Your task to perform on an android device: open sync settings in chrome Image 0: 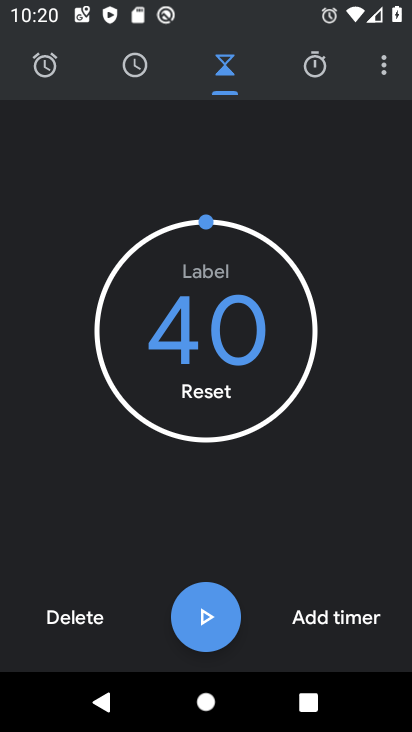
Step 0: press home button
Your task to perform on an android device: open sync settings in chrome Image 1: 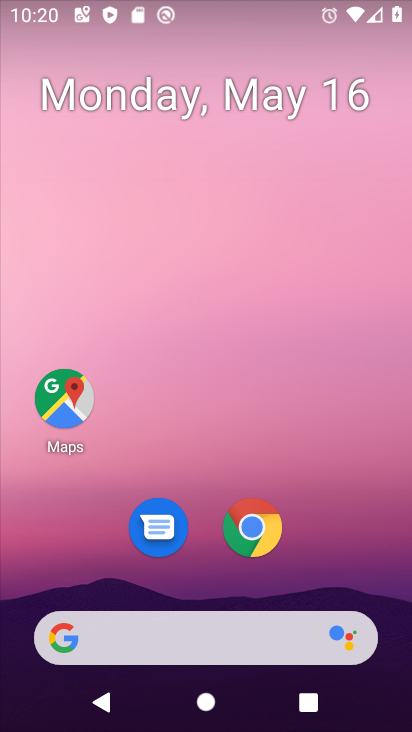
Step 1: click (239, 517)
Your task to perform on an android device: open sync settings in chrome Image 2: 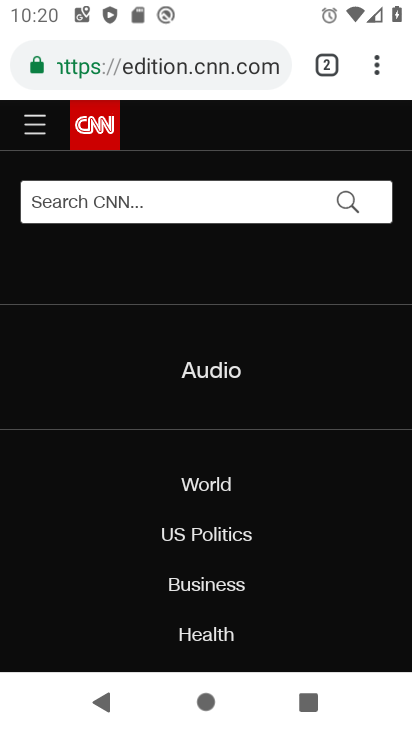
Step 2: click (374, 69)
Your task to perform on an android device: open sync settings in chrome Image 3: 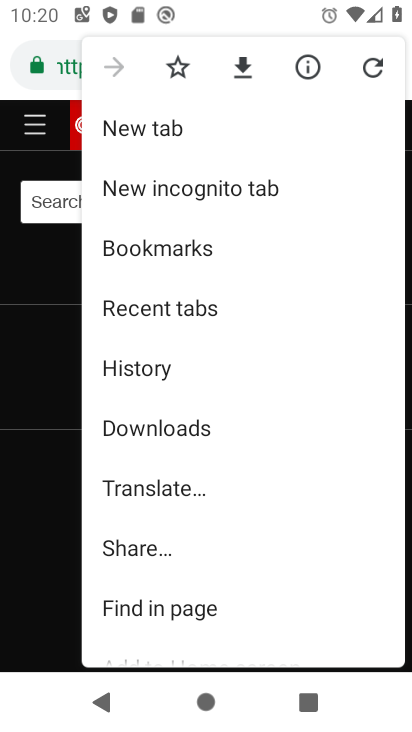
Step 3: drag from (271, 557) to (300, 123)
Your task to perform on an android device: open sync settings in chrome Image 4: 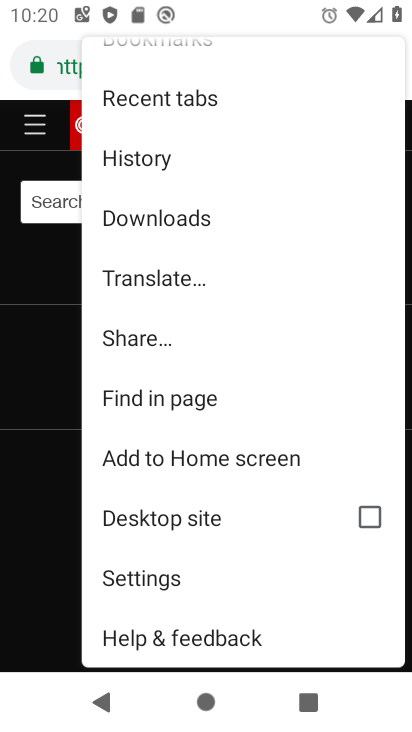
Step 4: click (131, 577)
Your task to perform on an android device: open sync settings in chrome Image 5: 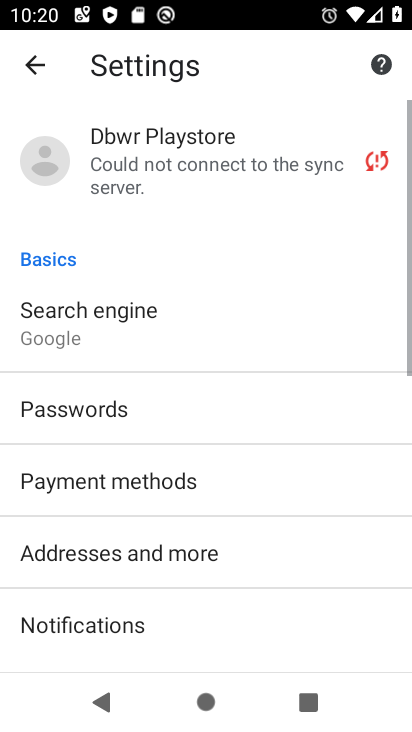
Step 5: click (138, 169)
Your task to perform on an android device: open sync settings in chrome Image 6: 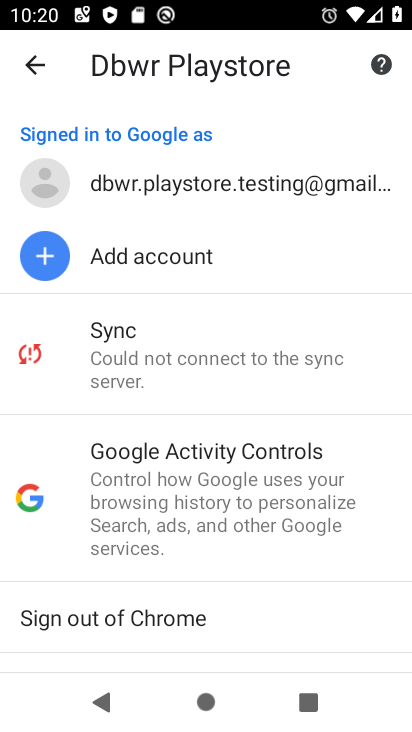
Step 6: click (105, 344)
Your task to perform on an android device: open sync settings in chrome Image 7: 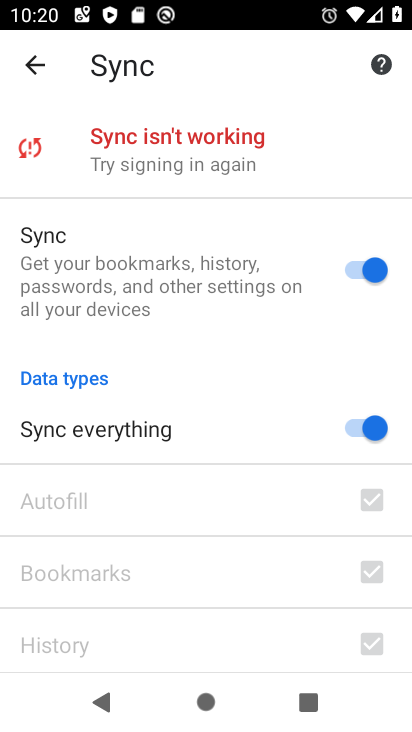
Step 7: task complete